Your task to perform on an android device: toggle notifications settings in the gmail app Image 0: 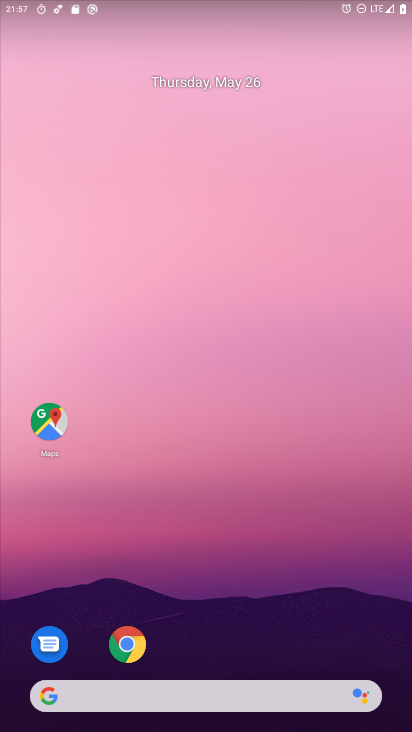
Step 0: click (269, 133)
Your task to perform on an android device: toggle notifications settings in the gmail app Image 1: 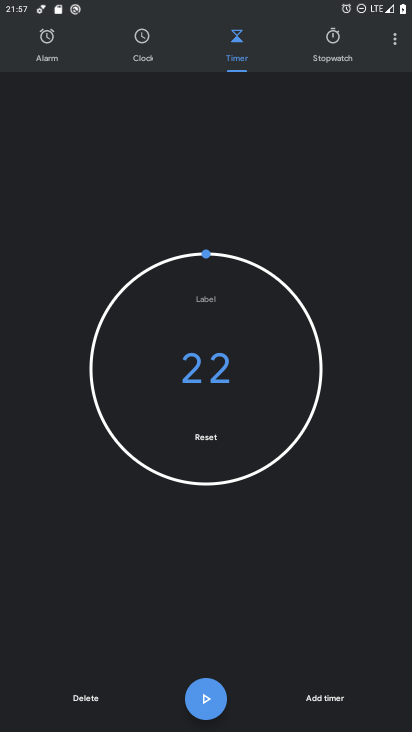
Step 1: drag from (327, 524) to (332, 258)
Your task to perform on an android device: toggle notifications settings in the gmail app Image 2: 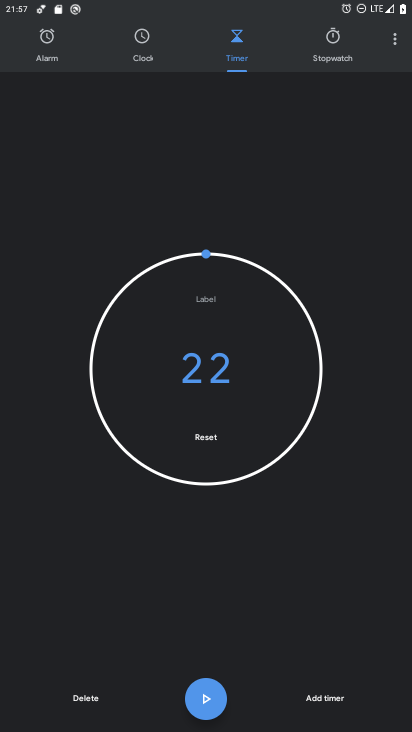
Step 2: drag from (198, 517) to (212, 241)
Your task to perform on an android device: toggle notifications settings in the gmail app Image 3: 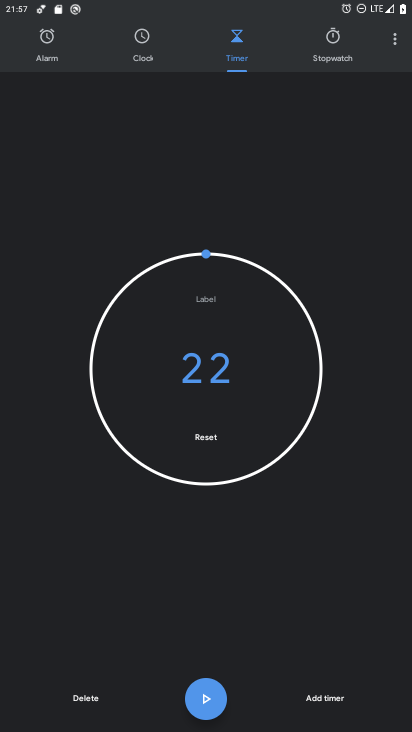
Step 3: drag from (206, 234) to (216, 540)
Your task to perform on an android device: toggle notifications settings in the gmail app Image 4: 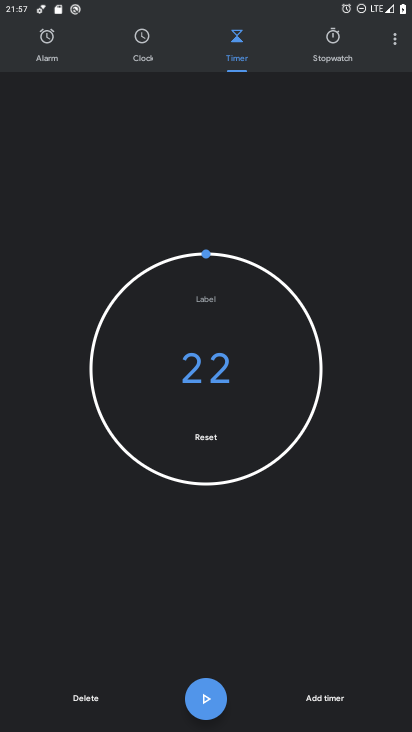
Step 4: drag from (209, 478) to (212, 272)
Your task to perform on an android device: toggle notifications settings in the gmail app Image 5: 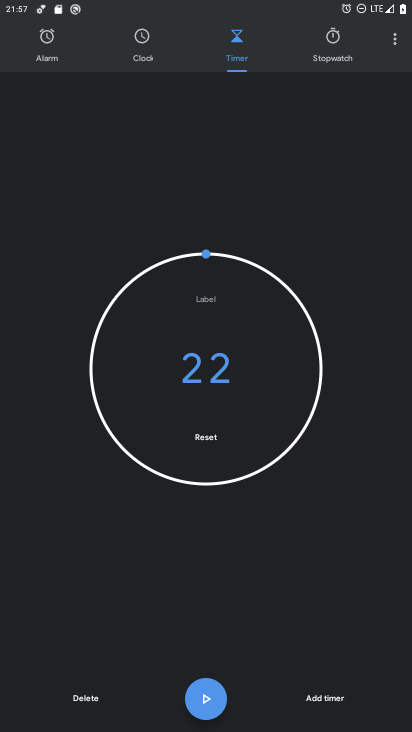
Step 5: drag from (212, 228) to (205, 515)
Your task to perform on an android device: toggle notifications settings in the gmail app Image 6: 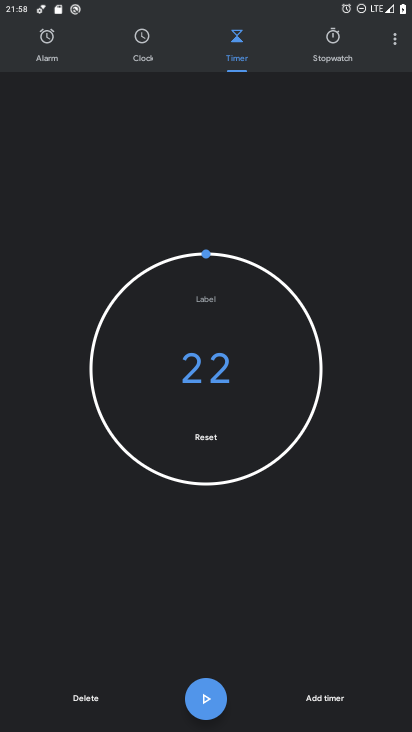
Step 6: press home button
Your task to perform on an android device: toggle notifications settings in the gmail app Image 7: 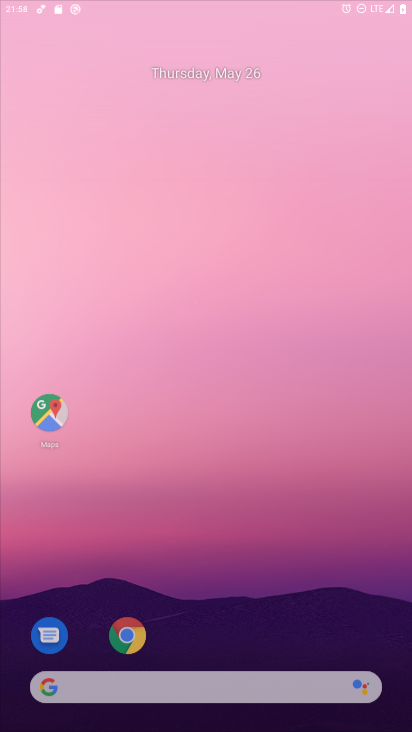
Step 7: drag from (217, 564) to (245, 98)
Your task to perform on an android device: toggle notifications settings in the gmail app Image 8: 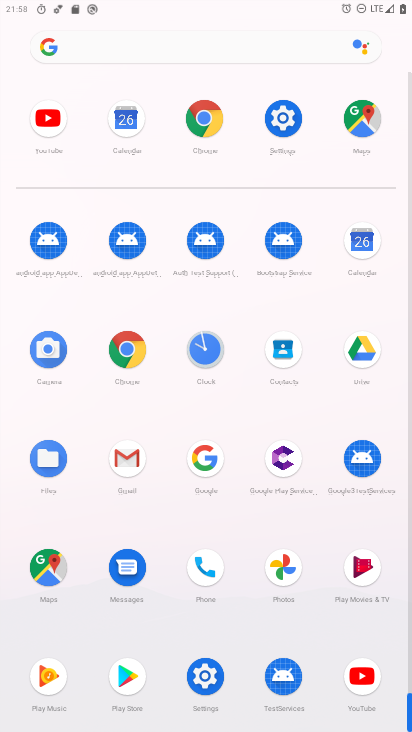
Step 8: click (125, 451)
Your task to perform on an android device: toggle notifications settings in the gmail app Image 9: 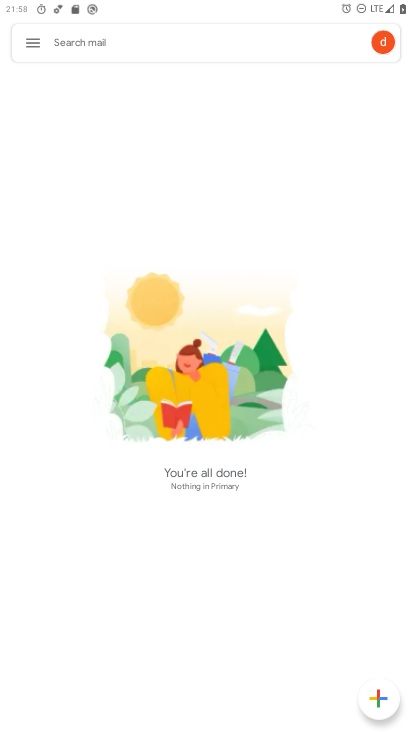
Step 9: click (15, 46)
Your task to perform on an android device: toggle notifications settings in the gmail app Image 10: 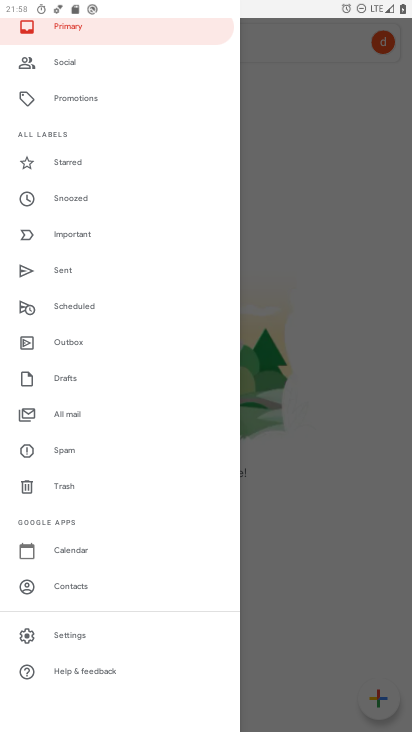
Step 10: click (49, 643)
Your task to perform on an android device: toggle notifications settings in the gmail app Image 11: 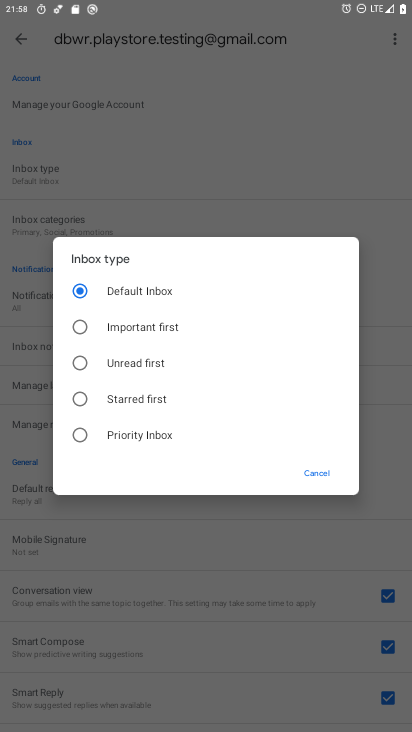
Step 11: click (324, 481)
Your task to perform on an android device: toggle notifications settings in the gmail app Image 12: 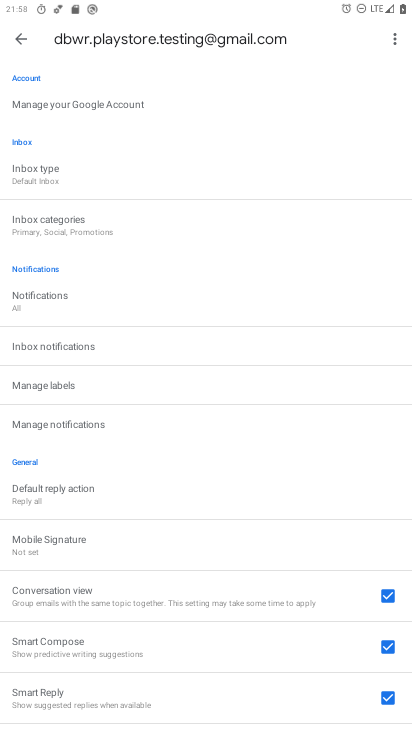
Step 12: click (92, 419)
Your task to perform on an android device: toggle notifications settings in the gmail app Image 13: 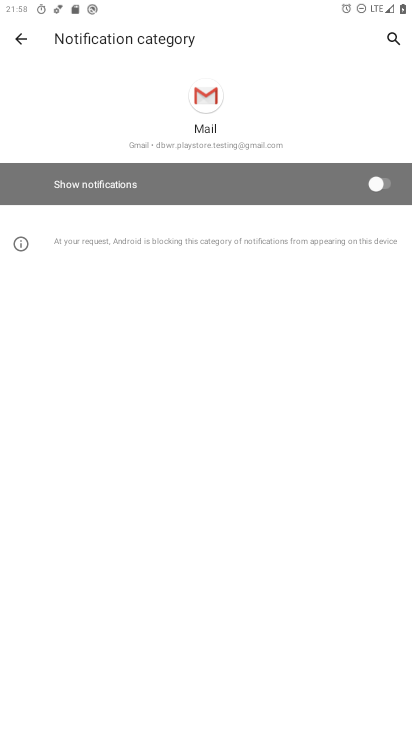
Step 13: click (352, 193)
Your task to perform on an android device: toggle notifications settings in the gmail app Image 14: 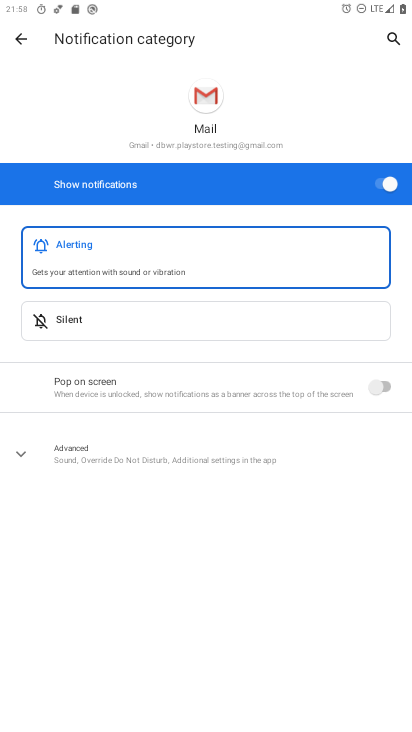
Step 14: task complete